Your task to perform on an android device: set the stopwatch Image 0: 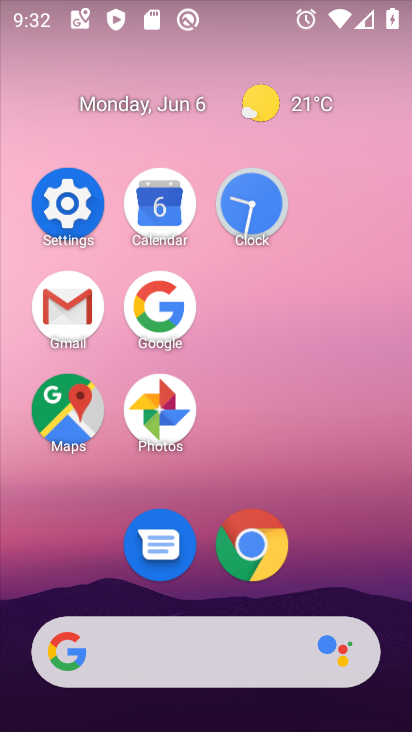
Step 0: click (259, 196)
Your task to perform on an android device: set the stopwatch Image 1: 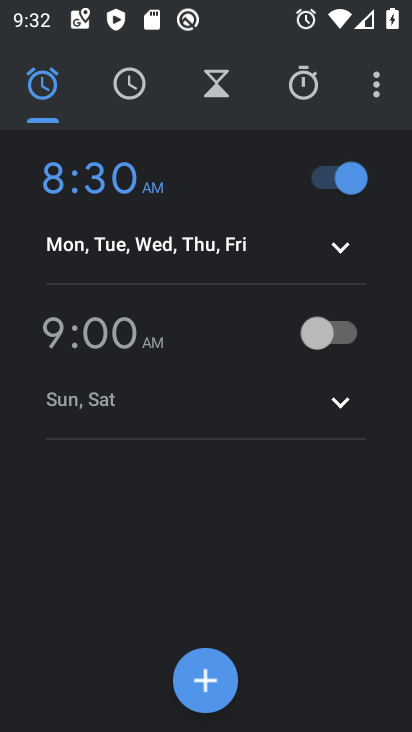
Step 1: click (294, 99)
Your task to perform on an android device: set the stopwatch Image 2: 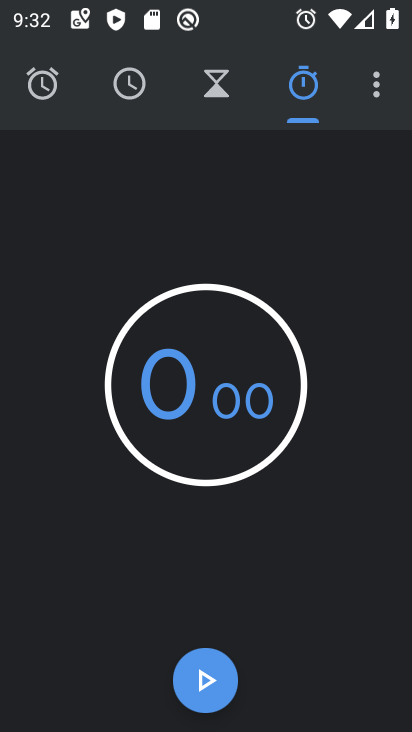
Step 2: click (214, 674)
Your task to perform on an android device: set the stopwatch Image 3: 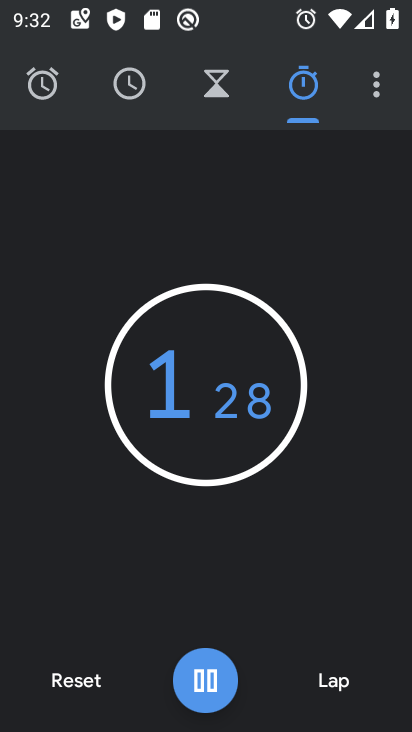
Step 3: task complete